Your task to perform on an android device: Show me popular games on the Play Store Image 0: 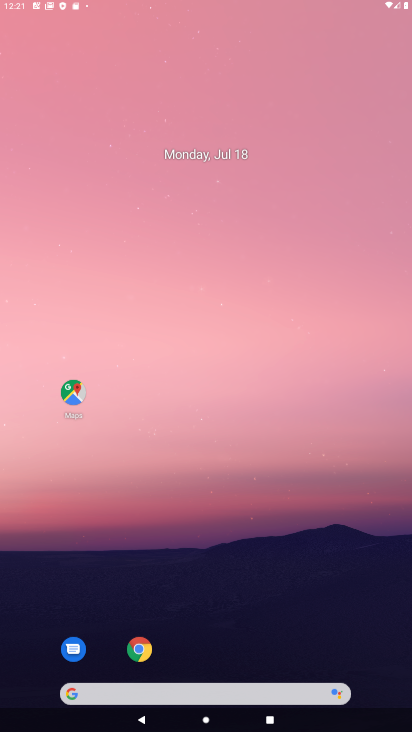
Step 0: press home button
Your task to perform on an android device: Show me popular games on the Play Store Image 1: 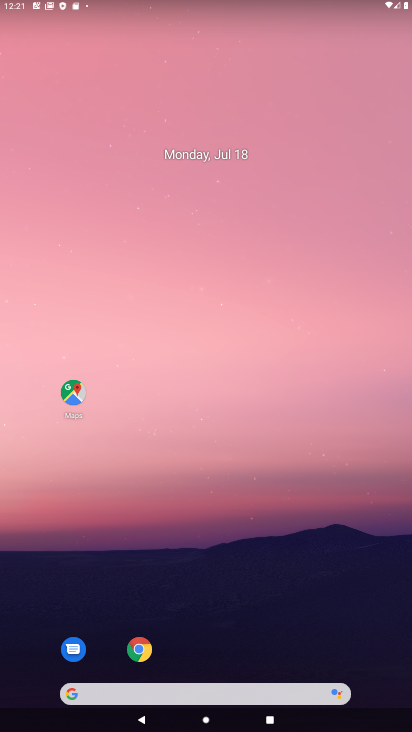
Step 1: drag from (385, 677) to (305, 203)
Your task to perform on an android device: Show me popular games on the Play Store Image 2: 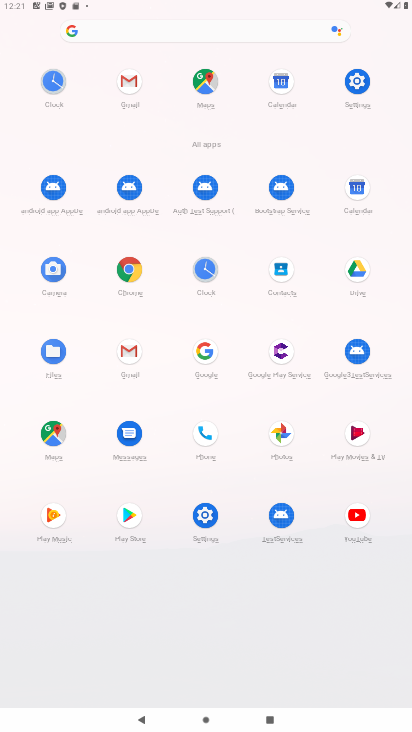
Step 2: click (128, 512)
Your task to perform on an android device: Show me popular games on the Play Store Image 3: 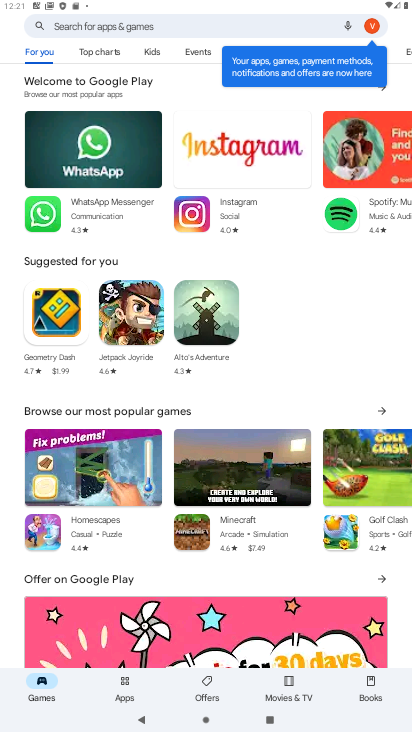
Step 3: click (382, 406)
Your task to perform on an android device: Show me popular games on the Play Store Image 4: 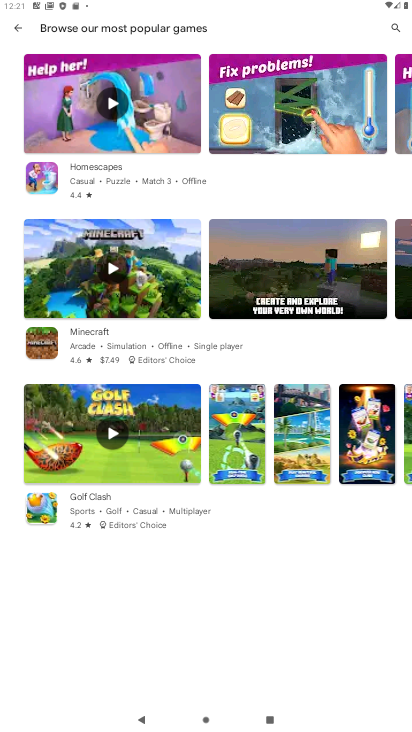
Step 4: task complete